Your task to perform on an android device: check the backup settings in the google photos Image 0: 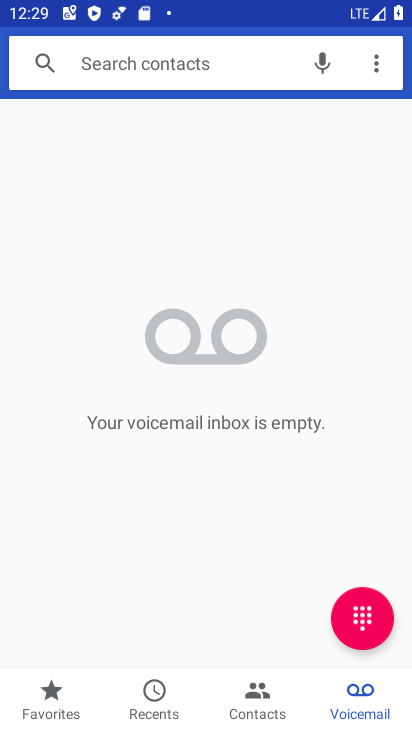
Step 0: drag from (200, 728) to (201, 658)
Your task to perform on an android device: check the backup settings in the google photos Image 1: 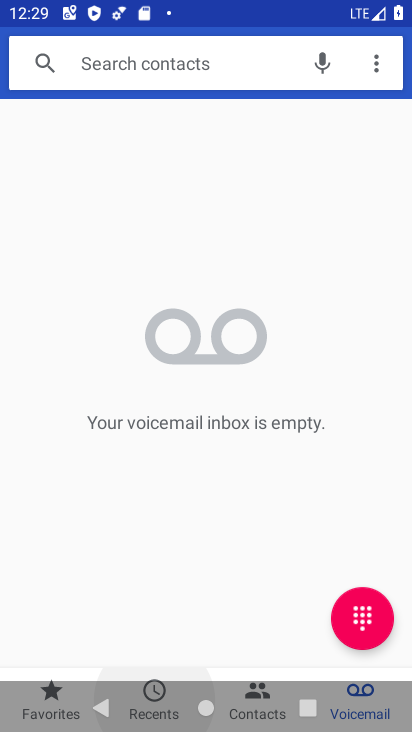
Step 1: click (200, 239)
Your task to perform on an android device: check the backup settings in the google photos Image 2: 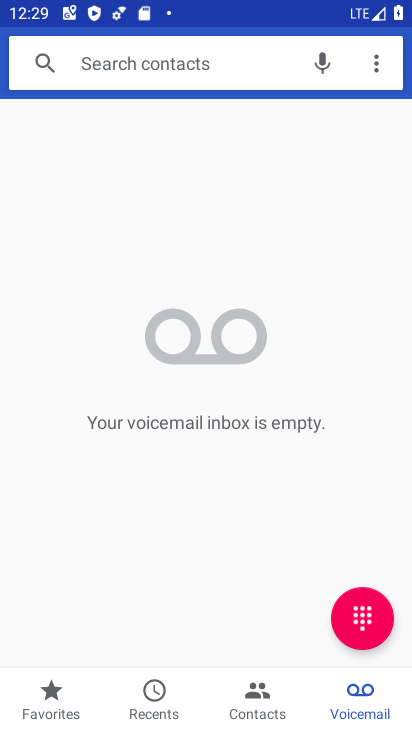
Step 2: press home button
Your task to perform on an android device: check the backup settings in the google photos Image 3: 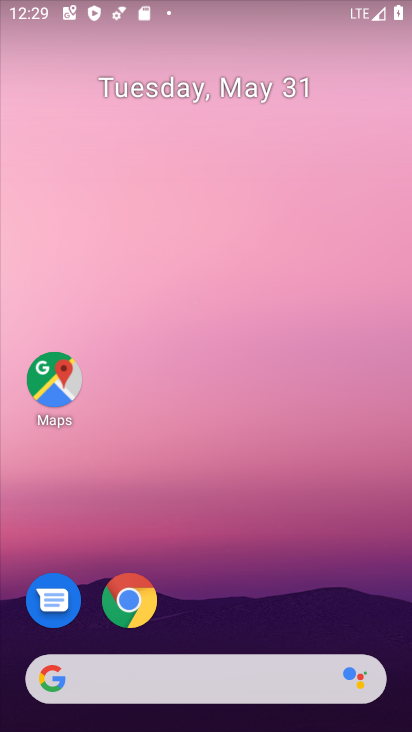
Step 3: drag from (224, 727) to (224, 637)
Your task to perform on an android device: check the backup settings in the google photos Image 4: 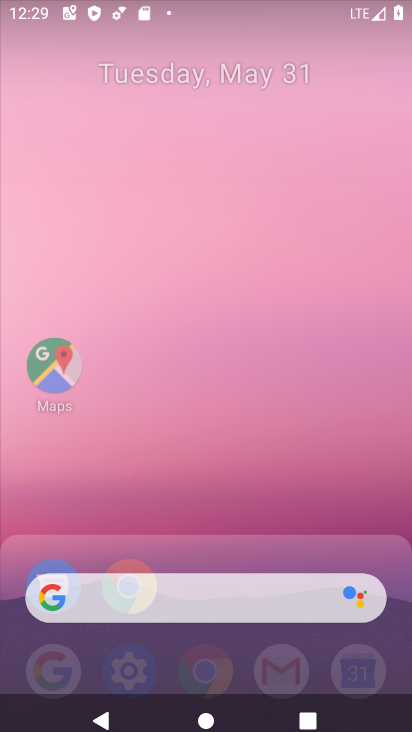
Step 4: drag from (222, 283) to (221, 180)
Your task to perform on an android device: check the backup settings in the google photos Image 5: 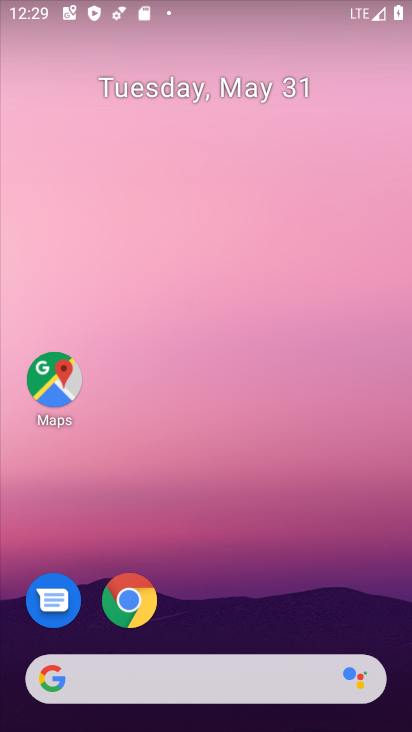
Step 5: click (223, 730)
Your task to perform on an android device: check the backup settings in the google photos Image 6: 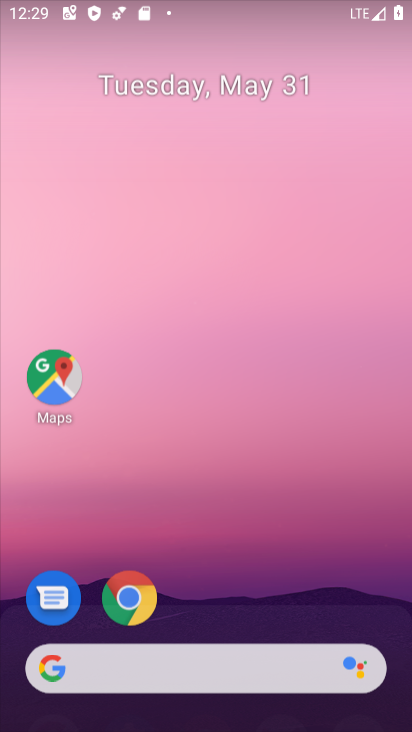
Step 6: drag from (223, 325) to (251, 1)
Your task to perform on an android device: check the backup settings in the google photos Image 7: 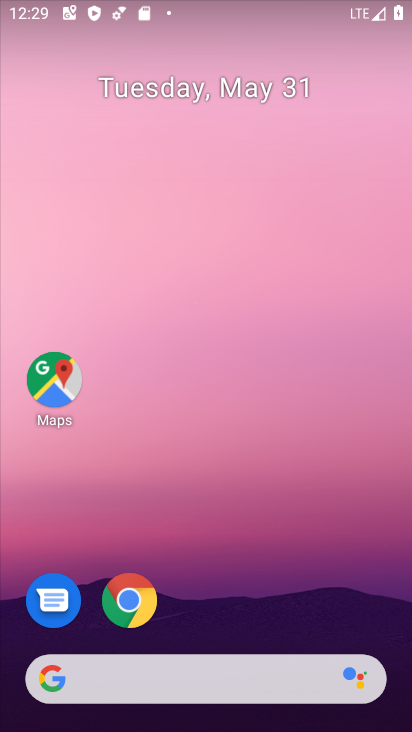
Step 7: drag from (221, 727) to (201, 5)
Your task to perform on an android device: check the backup settings in the google photos Image 8: 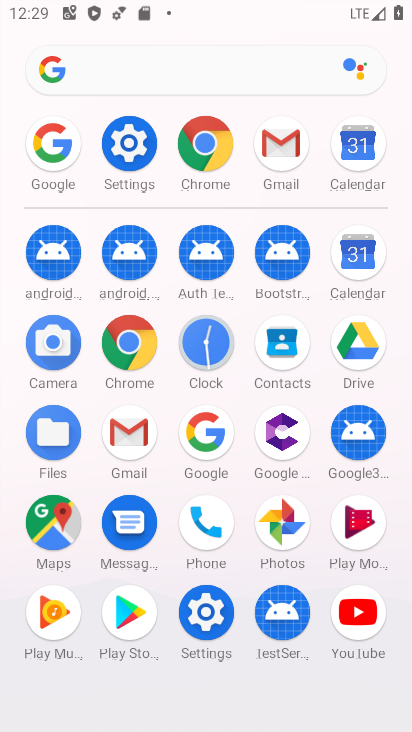
Step 8: click (289, 523)
Your task to perform on an android device: check the backup settings in the google photos Image 9: 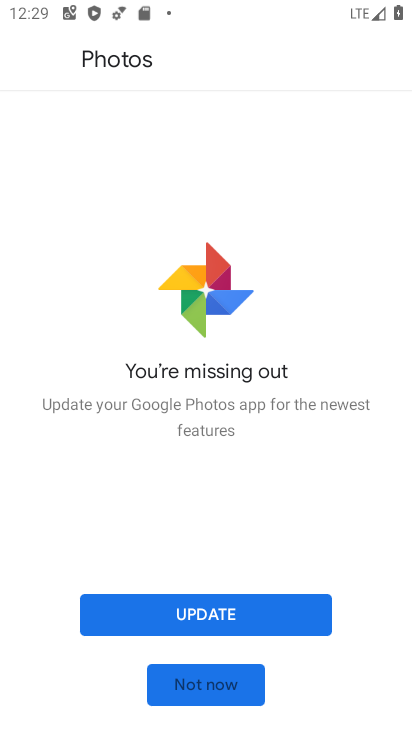
Step 9: click (216, 616)
Your task to perform on an android device: check the backup settings in the google photos Image 10: 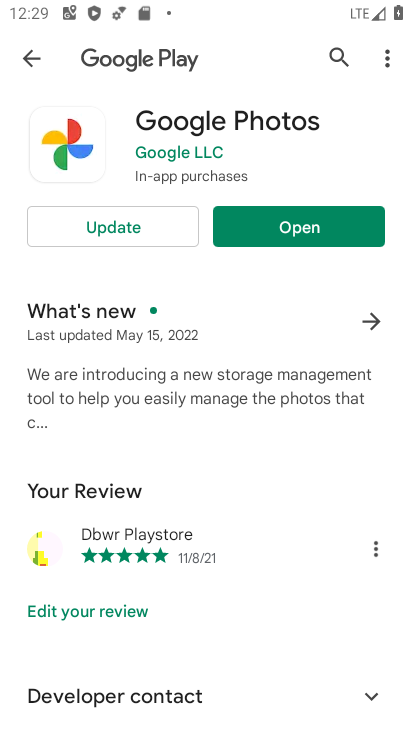
Step 10: click (148, 224)
Your task to perform on an android device: check the backup settings in the google photos Image 11: 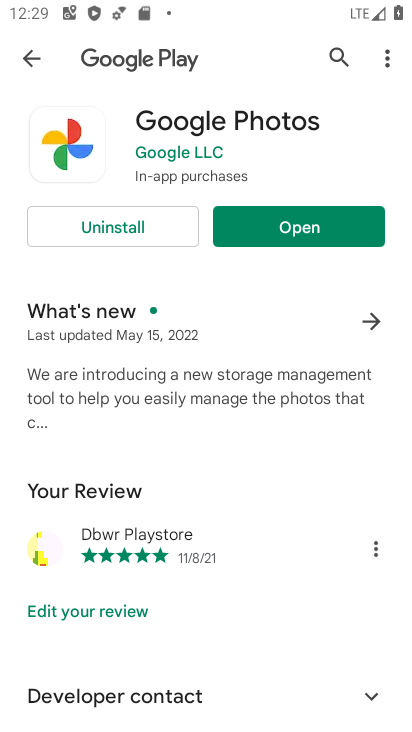
Step 11: click (302, 222)
Your task to perform on an android device: check the backup settings in the google photos Image 12: 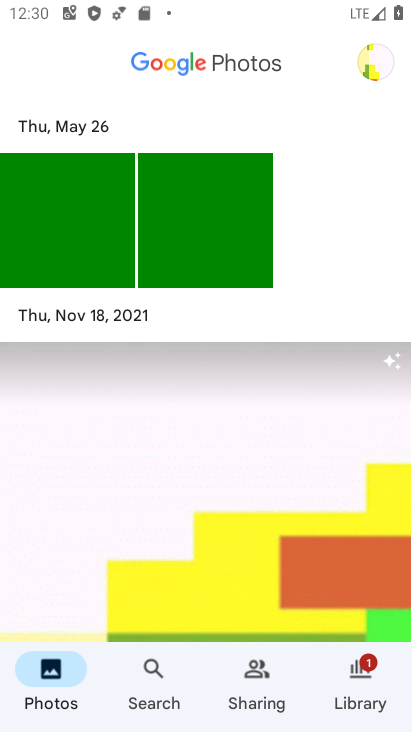
Step 12: click (158, 487)
Your task to perform on an android device: check the backup settings in the google photos Image 13: 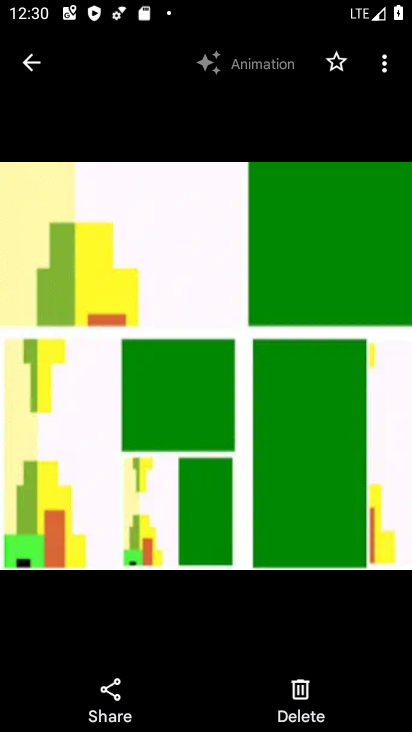
Step 13: task complete